Your task to perform on an android device: choose inbox layout in the gmail app Image 0: 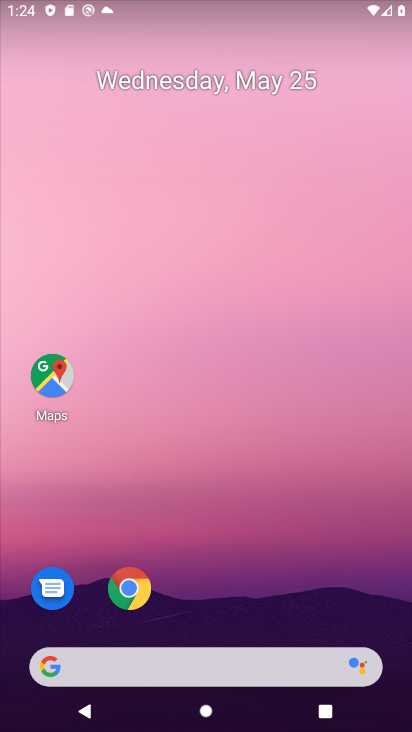
Step 0: drag from (245, 622) to (243, 6)
Your task to perform on an android device: choose inbox layout in the gmail app Image 1: 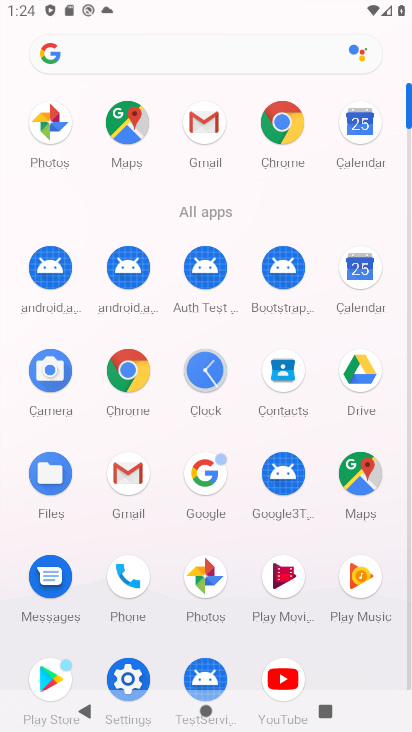
Step 1: click (208, 127)
Your task to perform on an android device: choose inbox layout in the gmail app Image 2: 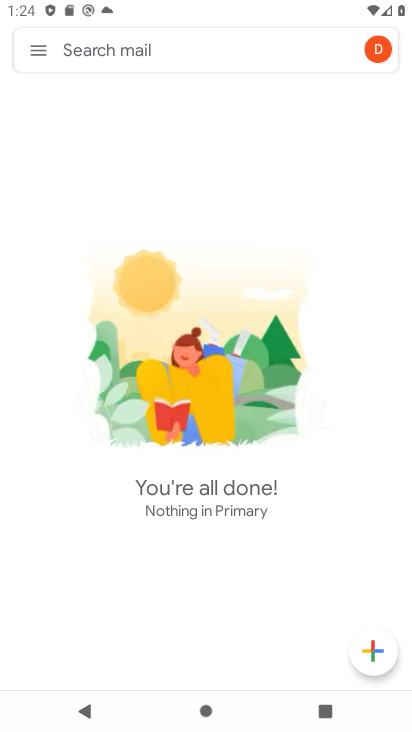
Step 2: click (35, 49)
Your task to perform on an android device: choose inbox layout in the gmail app Image 3: 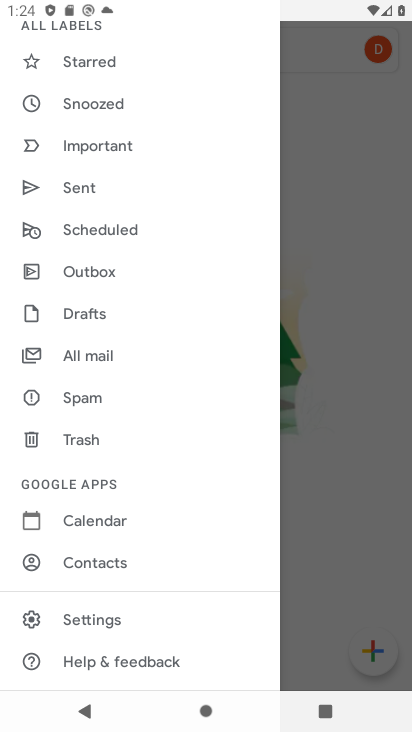
Step 3: click (108, 614)
Your task to perform on an android device: choose inbox layout in the gmail app Image 4: 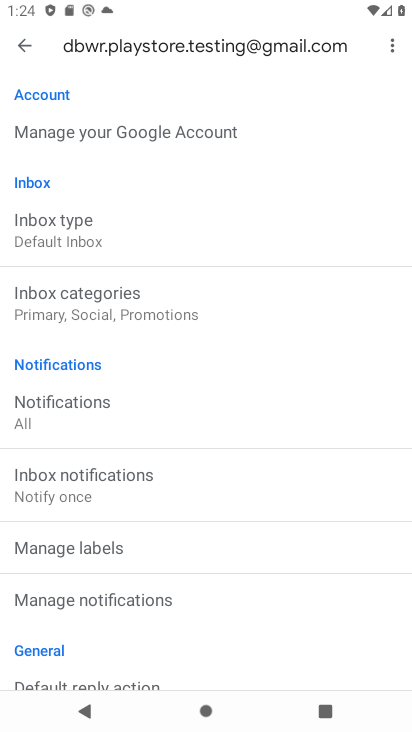
Step 4: click (97, 226)
Your task to perform on an android device: choose inbox layout in the gmail app Image 5: 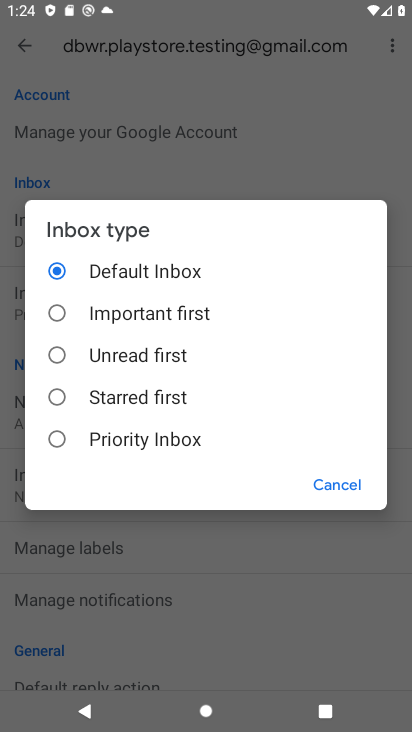
Step 5: click (129, 441)
Your task to perform on an android device: choose inbox layout in the gmail app Image 6: 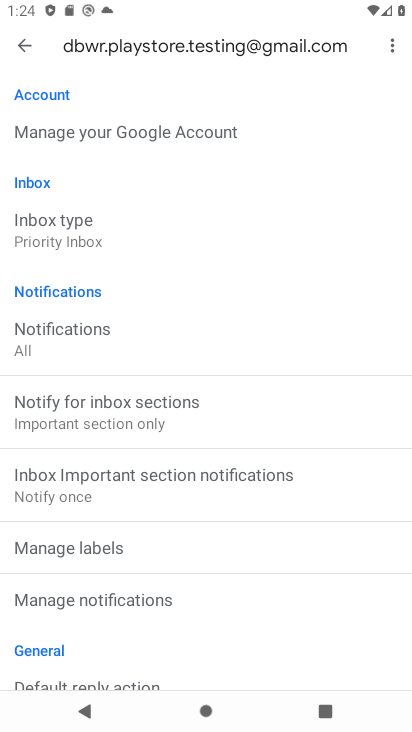
Step 6: task complete